Your task to perform on an android device: Go to ESPN.com Image 0: 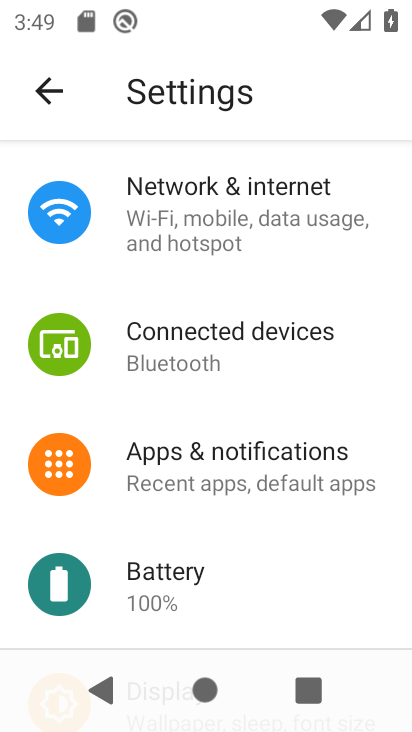
Step 0: press home button
Your task to perform on an android device: Go to ESPN.com Image 1: 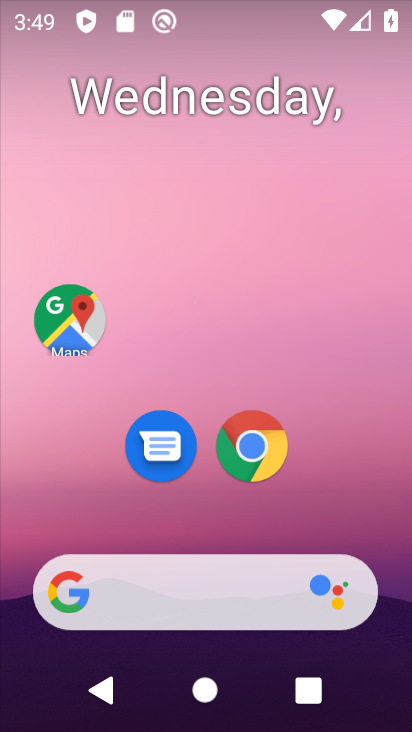
Step 1: click (255, 467)
Your task to perform on an android device: Go to ESPN.com Image 2: 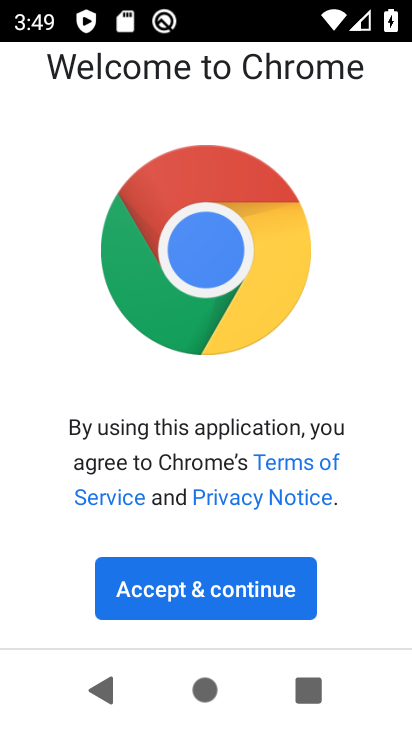
Step 2: click (232, 585)
Your task to perform on an android device: Go to ESPN.com Image 3: 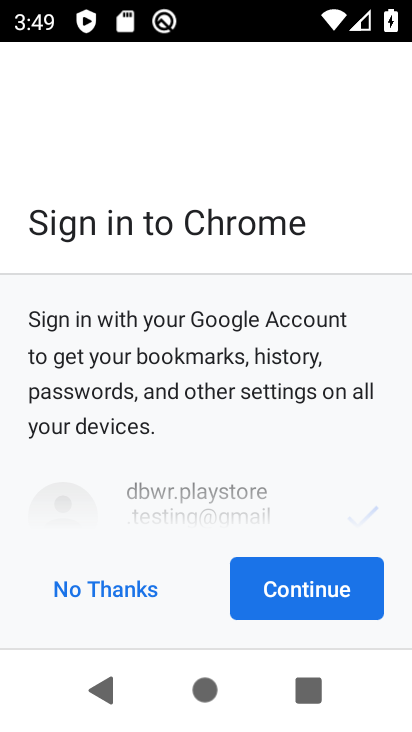
Step 3: click (302, 598)
Your task to perform on an android device: Go to ESPN.com Image 4: 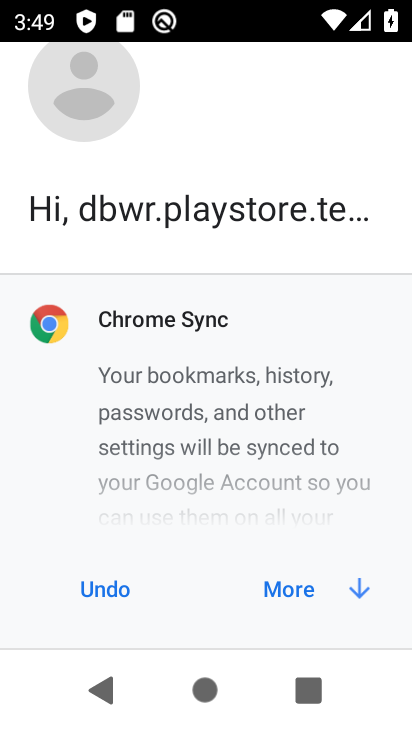
Step 4: click (302, 598)
Your task to perform on an android device: Go to ESPN.com Image 5: 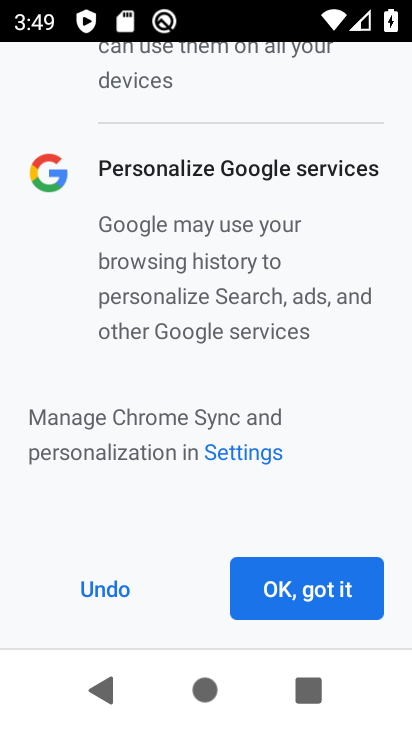
Step 5: click (308, 599)
Your task to perform on an android device: Go to ESPN.com Image 6: 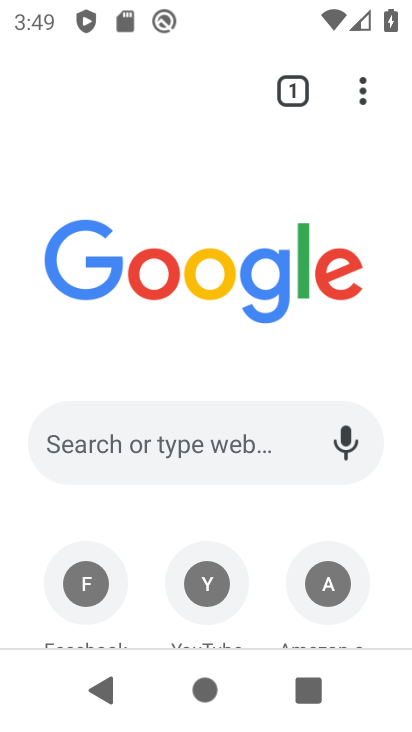
Step 6: drag from (257, 617) to (316, 385)
Your task to perform on an android device: Go to ESPN.com Image 7: 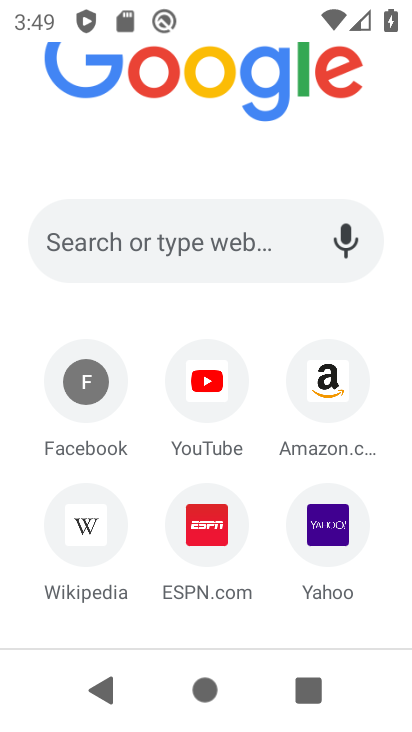
Step 7: click (202, 537)
Your task to perform on an android device: Go to ESPN.com Image 8: 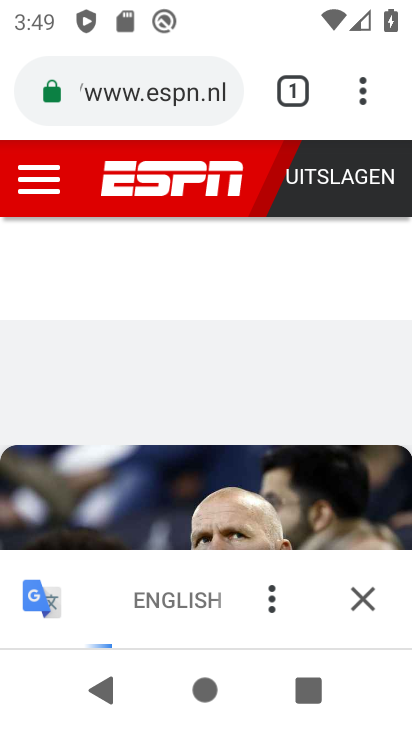
Step 8: task complete